Your task to perform on an android device: allow notifications from all sites in the chrome app Image 0: 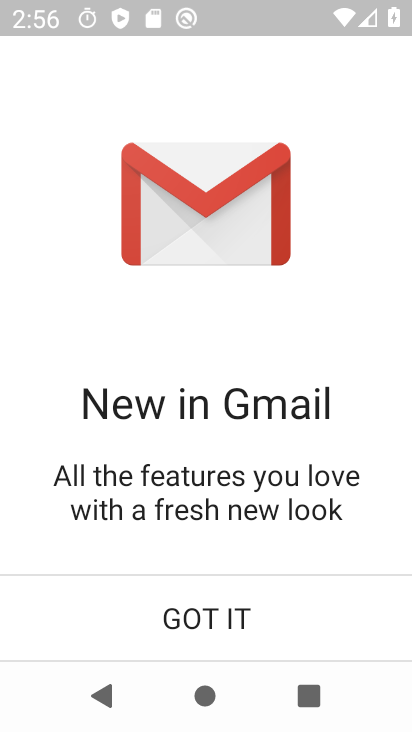
Step 0: press home button
Your task to perform on an android device: allow notifications from all sites in the chrome app Image 1: 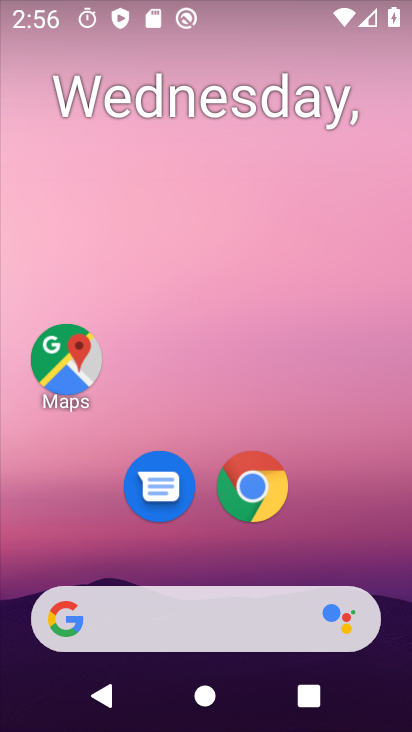
Step 1: click (266, 490)
Your task to perform on an android device: allow notifications from all sites in the chrome app Image 2: 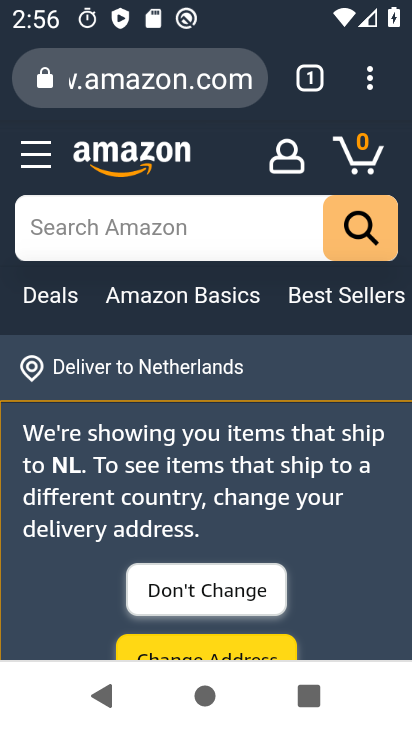
Step 2: click (365, 89)
Your task to perform on an android device: allow notifications from all sites in the chrome app Image 3: 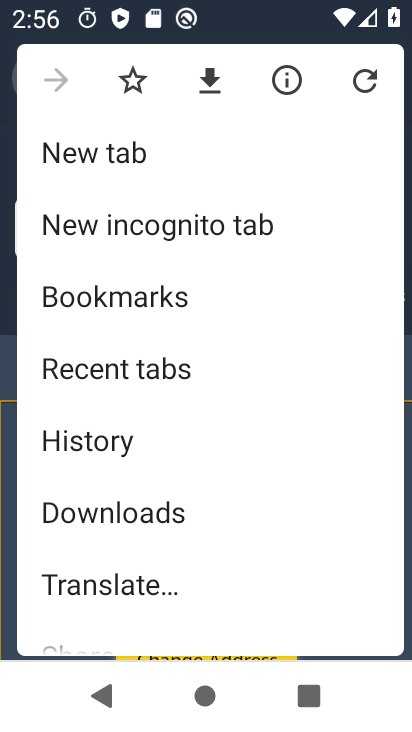
Step 3: drag from (257, 551) to (231, 126)
Your task to perform on an android device: allow notifications from all sites in the chrome app Image 4: 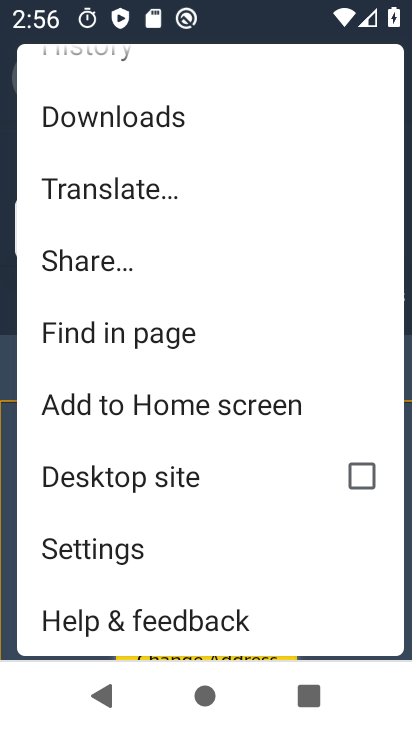
Step 4: click (170, 556)
Your task to perform on an android device: allow notifications from all sites in the chrome app Image 5: 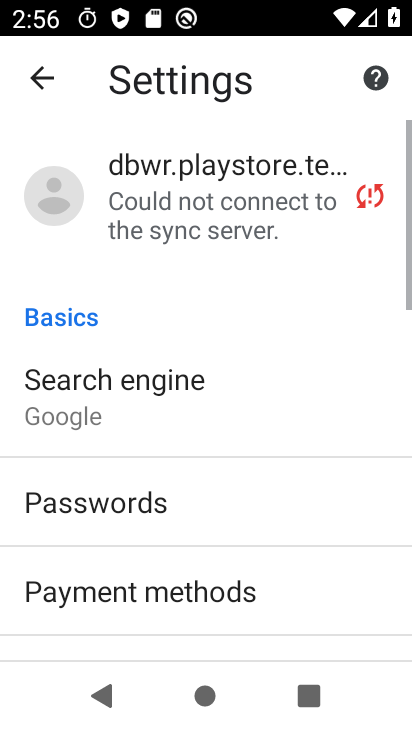
Step 5: drag from (226, 620) to (220, 166)
Your task to perform on an android device: allow notifications from all sites in the chrome app Image 6: 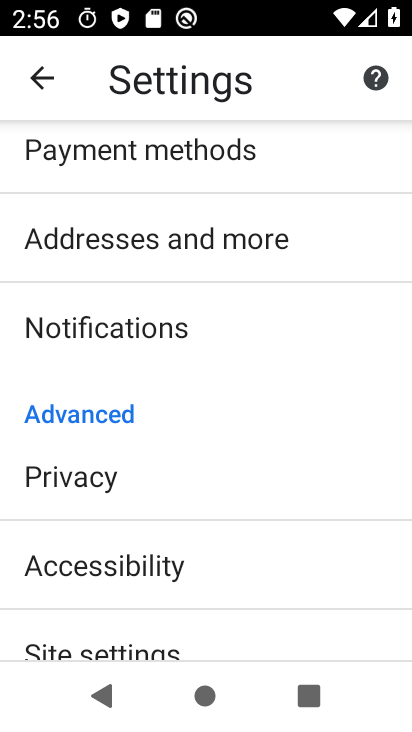
Step 6: drag from (193, 585) to (175, 312)
Your task to perform on an android device: allow notifications from all sites in the chrome app Image 7: 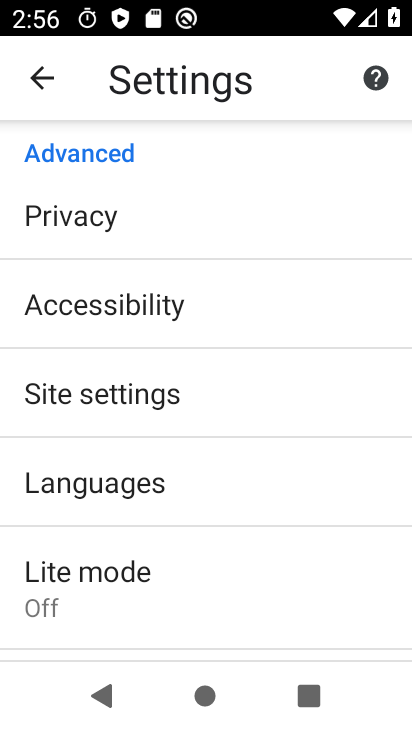
Step 7: click (161, 394)
Your task to perform on an android device: allow notifications from all sites in the chrome app Image 8: 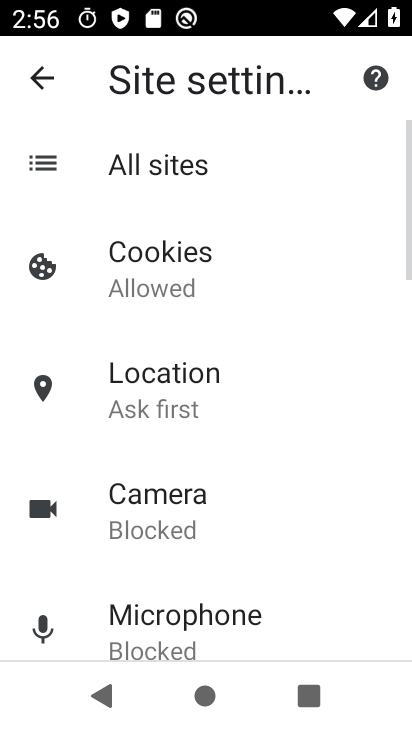
Step 8: drag from (227, 591) to (214, 131)
Your task to perform on an android device: allow notifications from all sites in the chrome app Image 9: 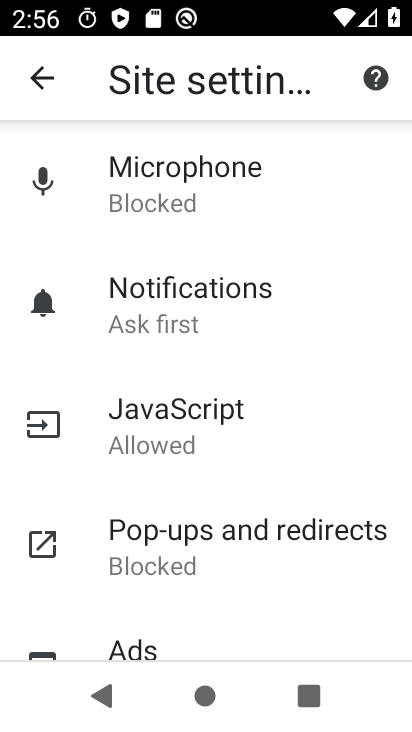
Step 9: click (177, 327)
Your task to perform on an android device: allow notifications from all sites in the chrome app Image 10: 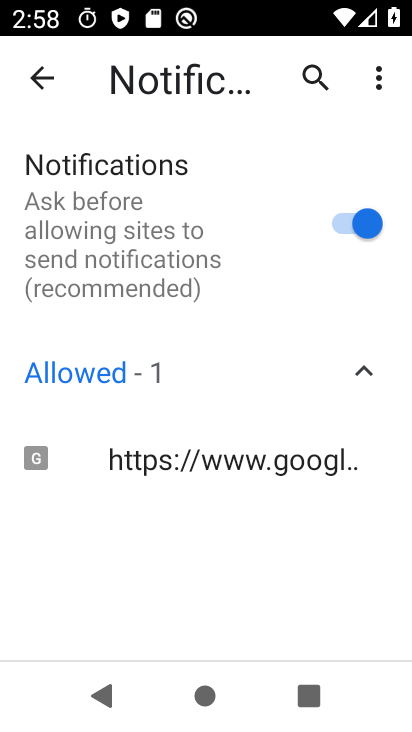
Step 10: task complete